Your task to perform on an android device: check battery use Image 0: 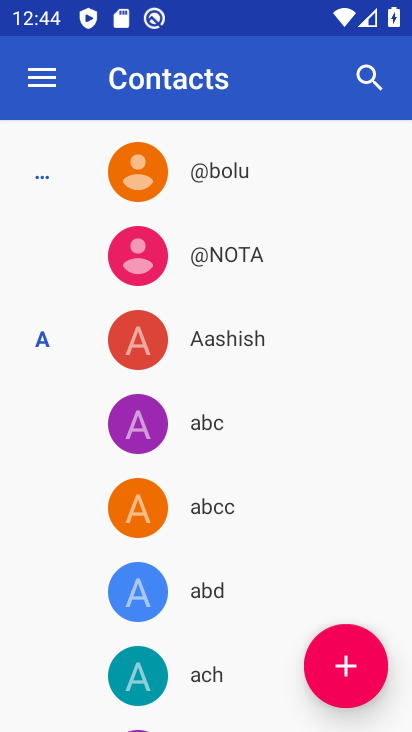
Step 0: press home button
Your task to perform on an android device: check battery use Image 1: 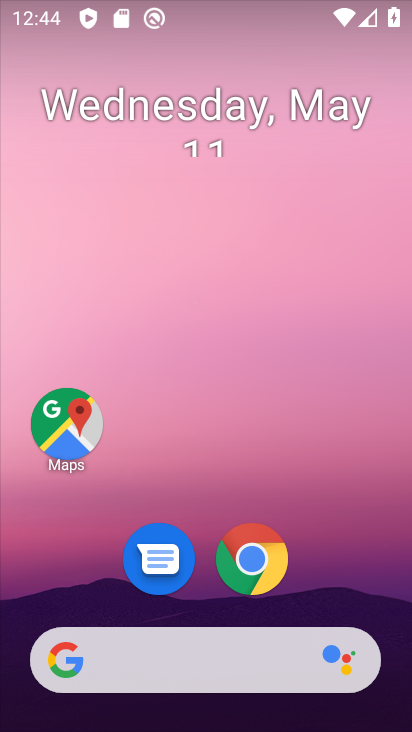
Step 1: drag from (212, 373) to (247, 21)
Your task to perform on an android device: check battery use Image 2: 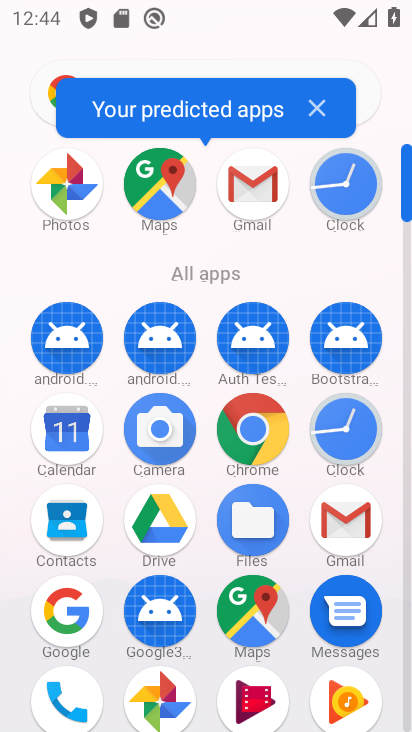
Step 2: drag from (114, 499) to (178, 168)
Your task to perform on an android device: check battery use Image 3: 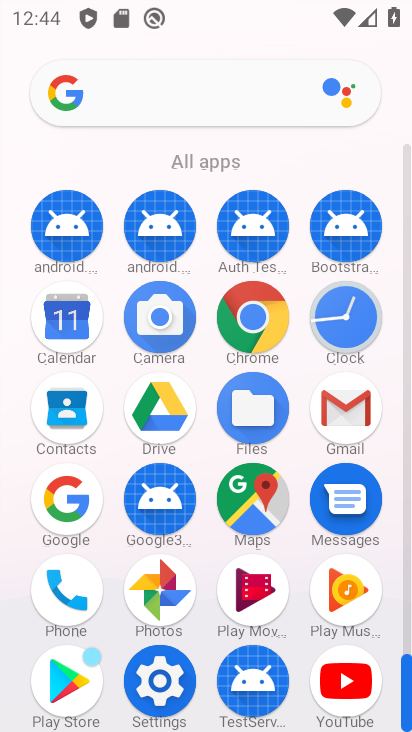
Step 3: click (165, 676)
Your task to perform on an android device: check battery use Image 4: 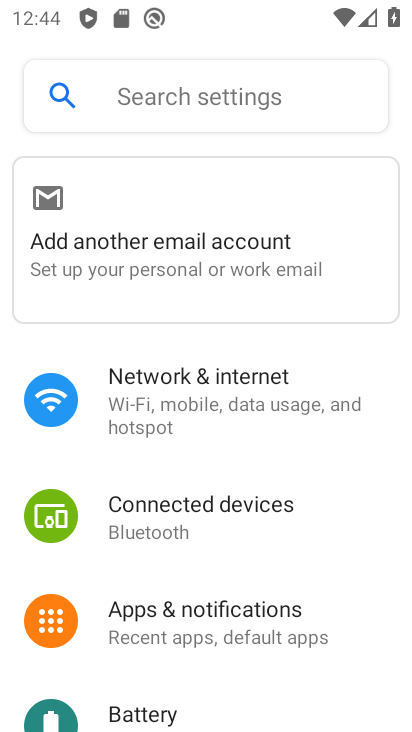
Step 4: drag from (235, 624) to (252, 351)
Your task to perform on an android device: check battery use Image 5: 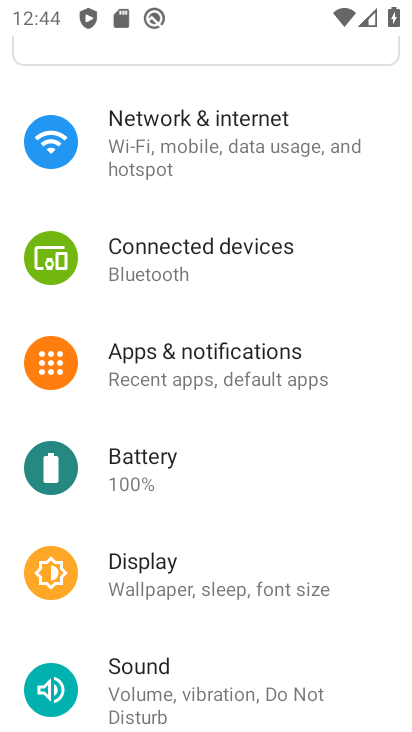
Step 5: click (226, 459)
Your task to perform on an android device: check battery use Image 6: 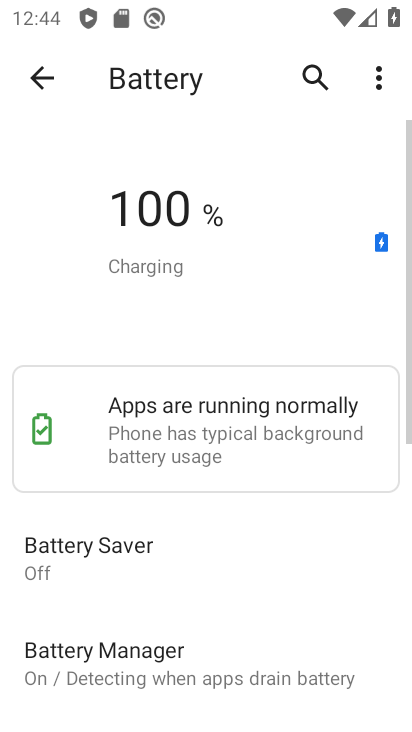
Step 6: click (371, 76)
Your task to perform on an android device: check battery use Image 7: 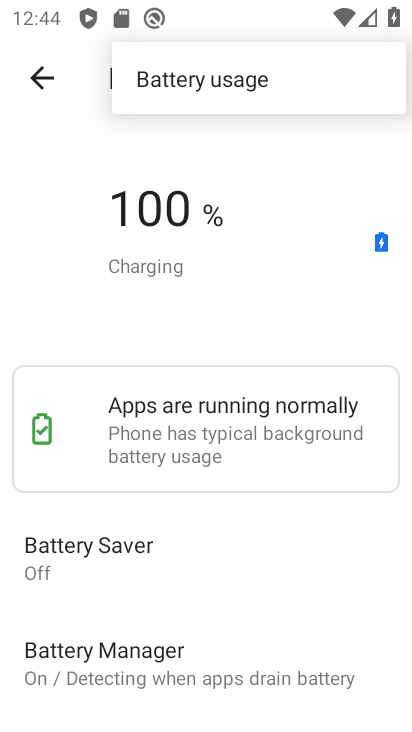
Step 7: click (228, 89)
Your task to perform on an android device: check battery use Image 8: 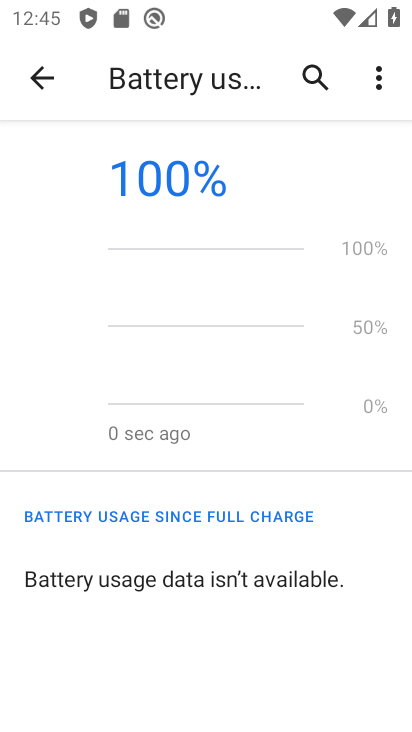
Step 8: task complete